Your task to perform on an android device: turn on wifi Image 0: 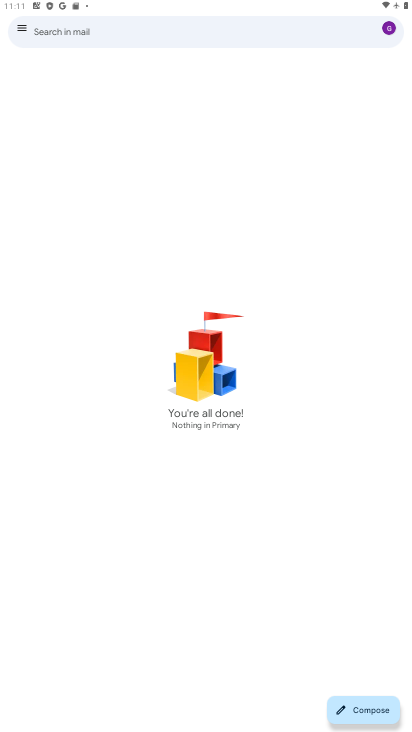
Step 0: task complete